Your task to perform on an android device: Go to Google Image 0: 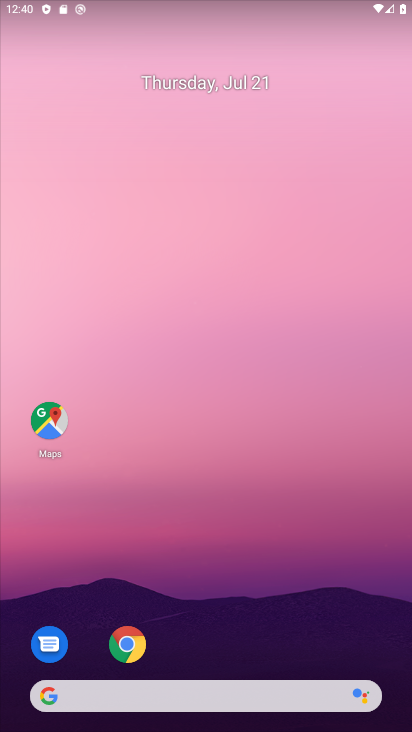
Step 0: click (201, 694)
Your task to perform on an android device: Go to Google Image 1: 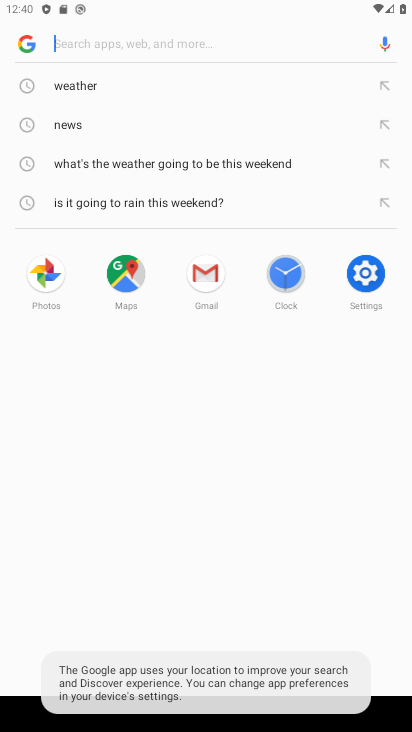
Step 1: task complete